Your task to perform on an android device: open app "Instagram" (install if not already installed) Image 0: 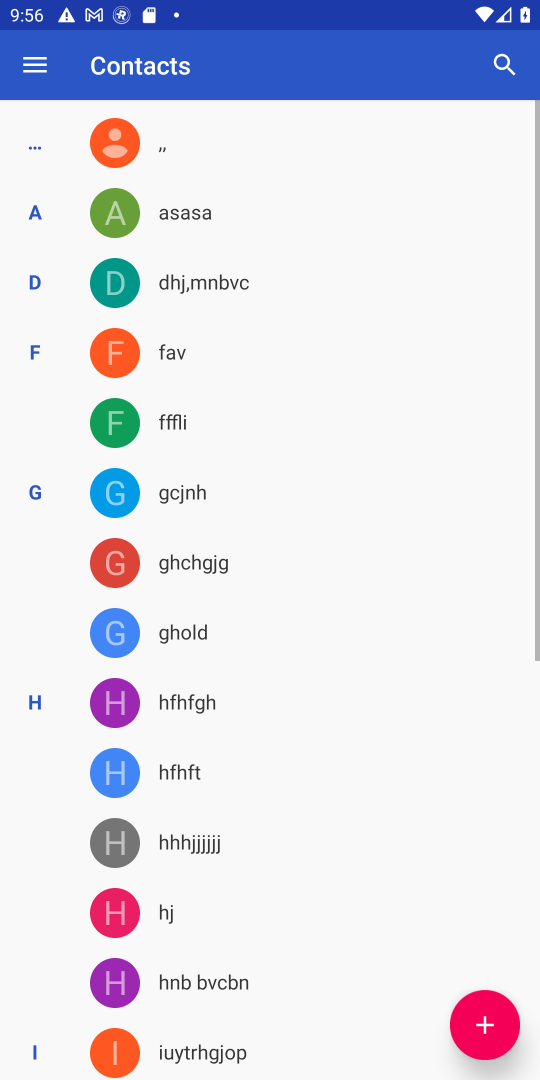
Step 0: press home button
Your task to perform on an android device: open app "Instagram" (install if not already installed) Image 1: 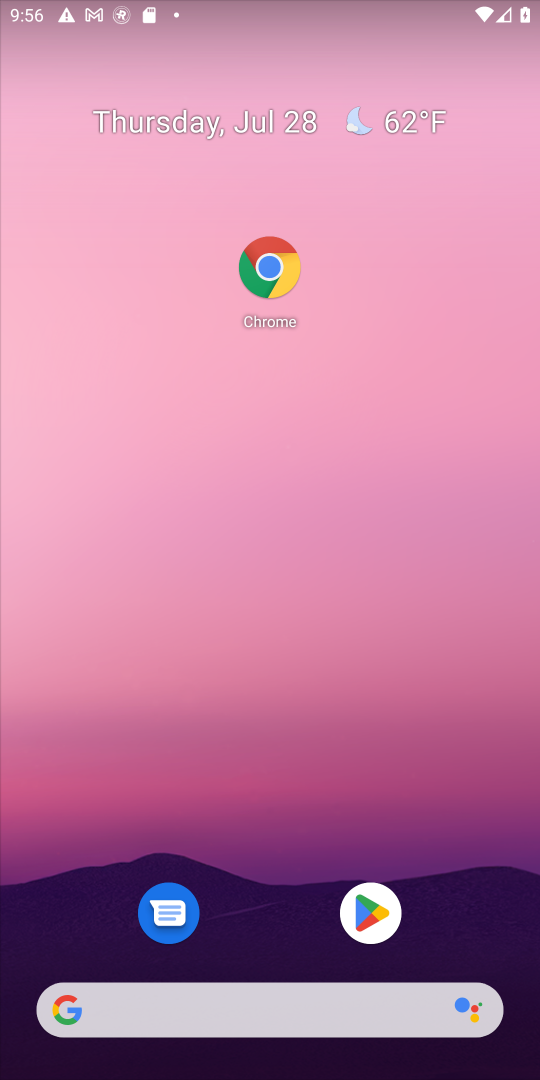
Step 1: click (379, 926)
Your task to perform on an android device: open app "Instagram" (install if not already installed) Image 2: 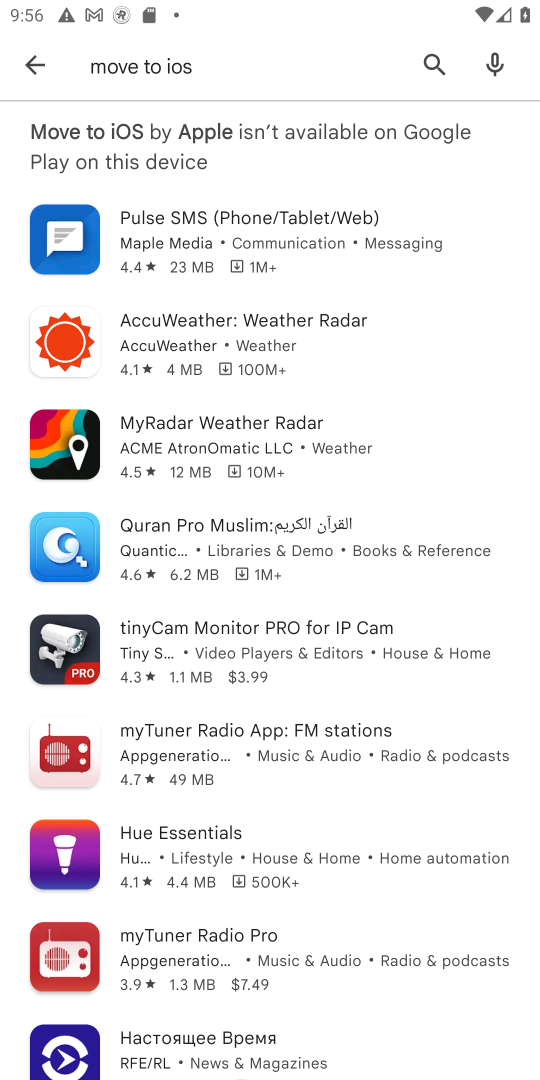
Step 2: click (422, 59)
Your task to perform on an android device: open app "Instagram" (install if not already installed) Image 3: 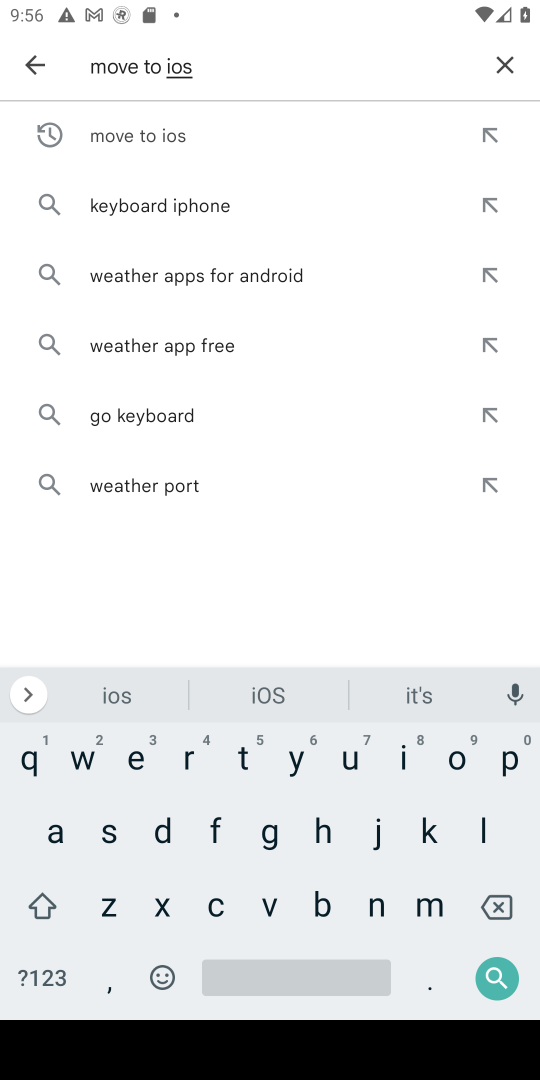
Step 3: click (502, 59)
Your task to perform on an android device: open app "Instagram" (install if not already installed) Image 4: 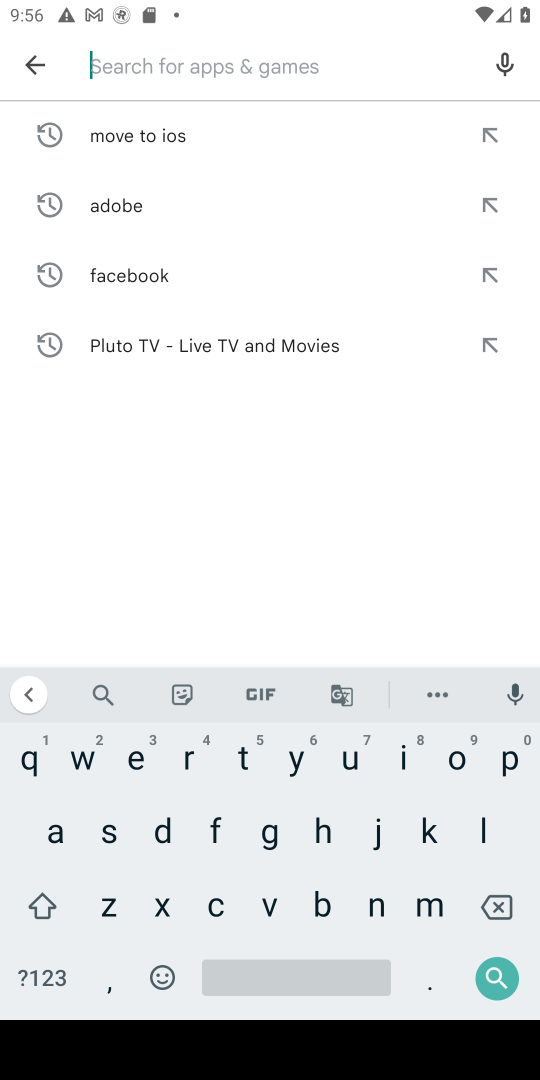
Step 4: click (410, 758)
Your task to perform on an android device: open app "Instagram" (install if not already installed) Image 5: 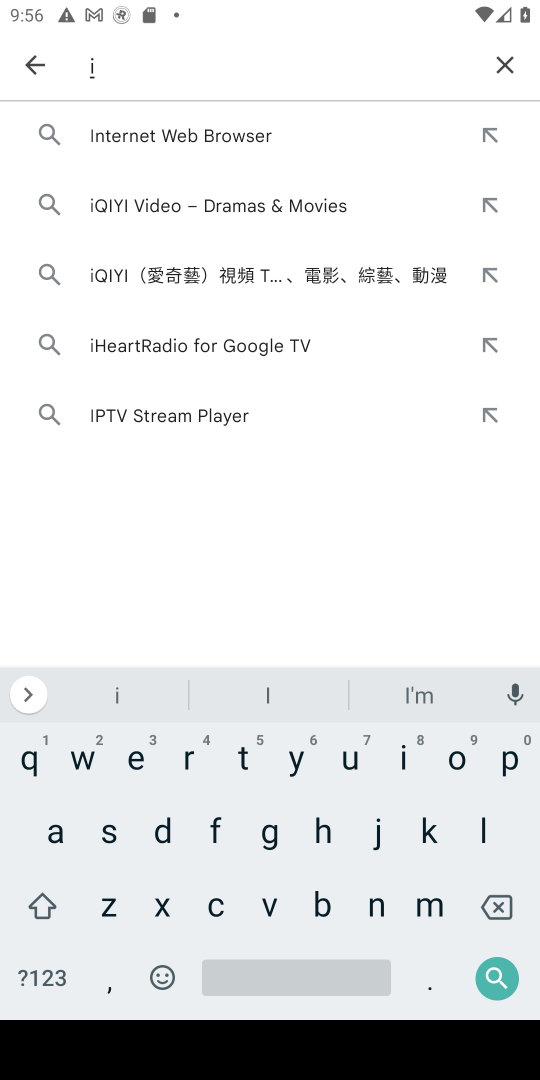
Step 5: click (375, 907)
Your task to perform on an android device: open app "Instagram" (install if not already installed) Image 6: 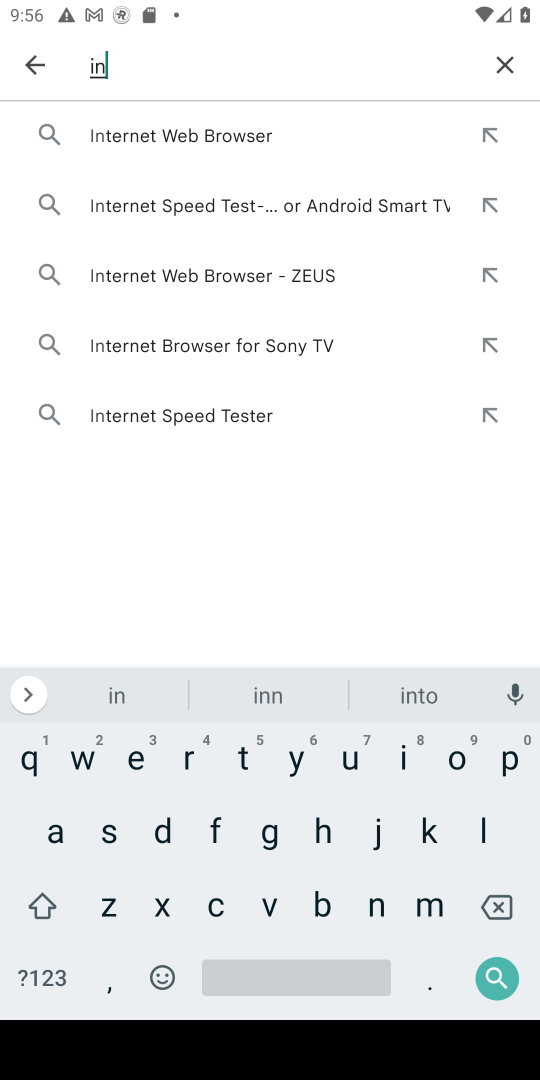
Step 6: click (103, 833)
Your task to perform on an android device: open app "Instagram" (install if not already installed) Image 7: 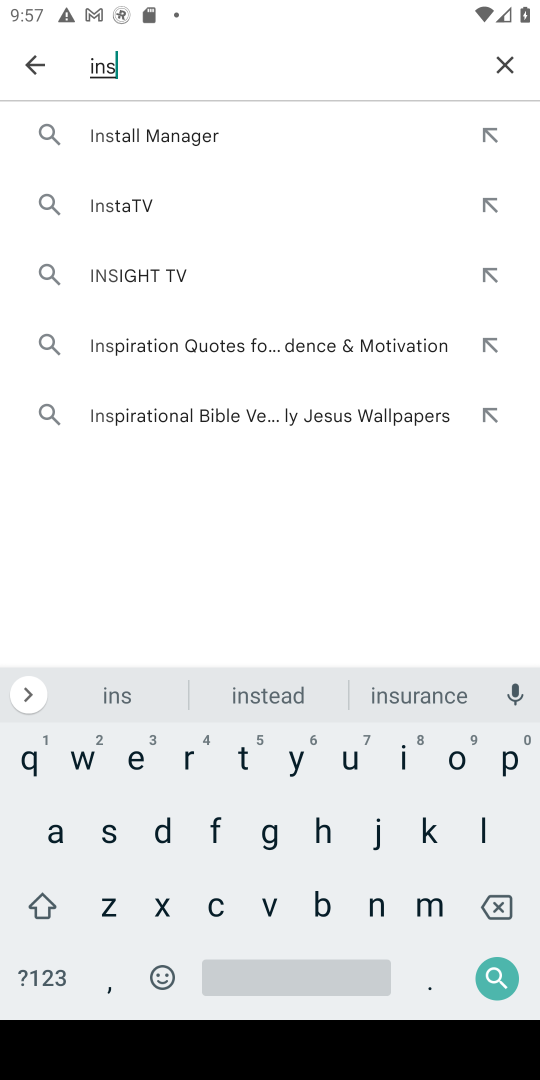
Step 7: click (267, 743)
Your task to perform on an android device: open app "Instagram" (install if not already installed) Image 8: 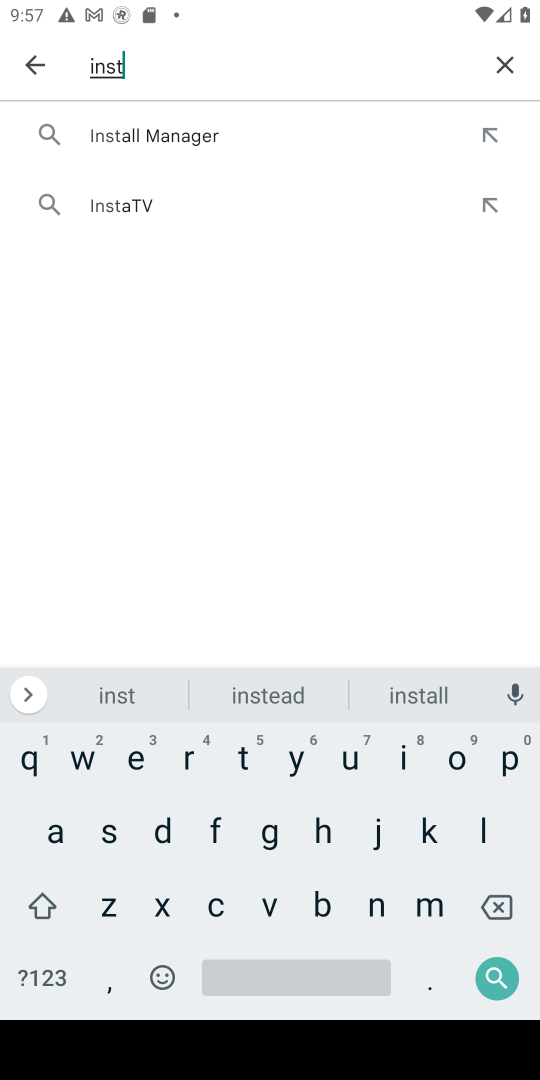
Step 8: click (51, 838)
Your task to perform on an android device: open app "Instagram" (install if not already installed) Image 9: 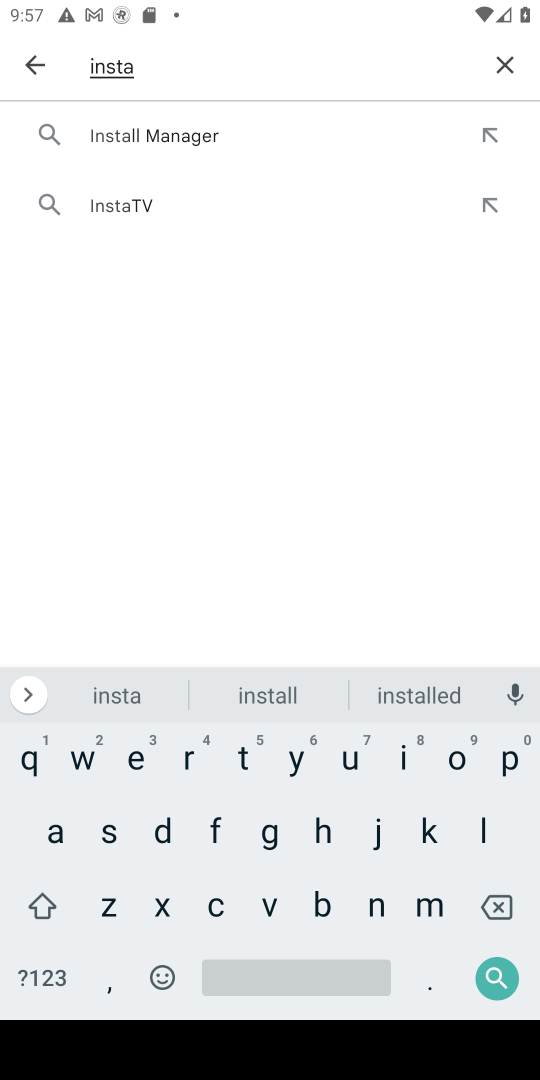
Step 9: click (258, 827)
Your task to perform on an android device: open app "Instagram" (install if not already installed) Image 10: 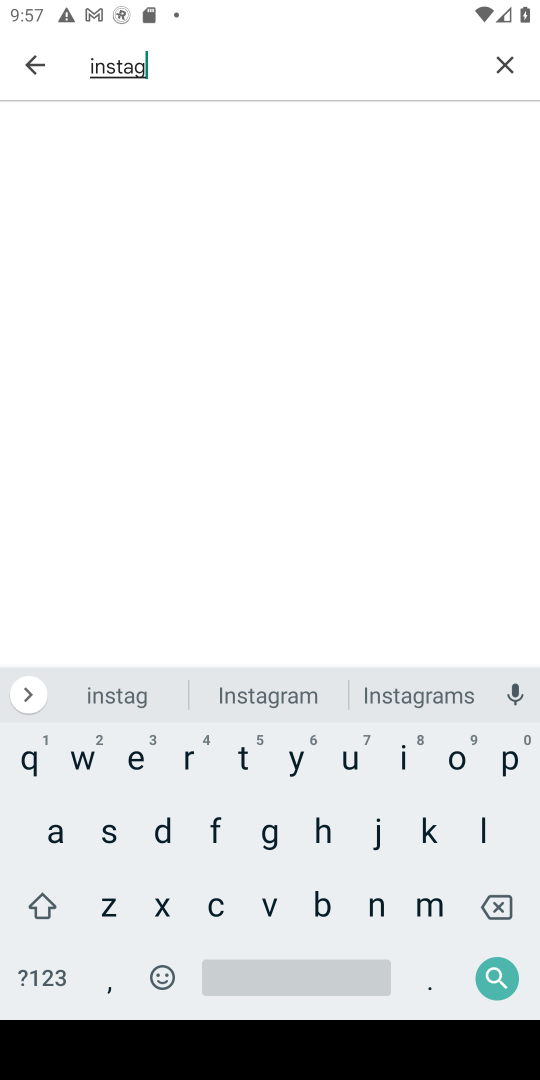
Step 10: click (264, 694)
Your task to perform on an android device: open app "Instagram" (install if not already installed) Image 11: 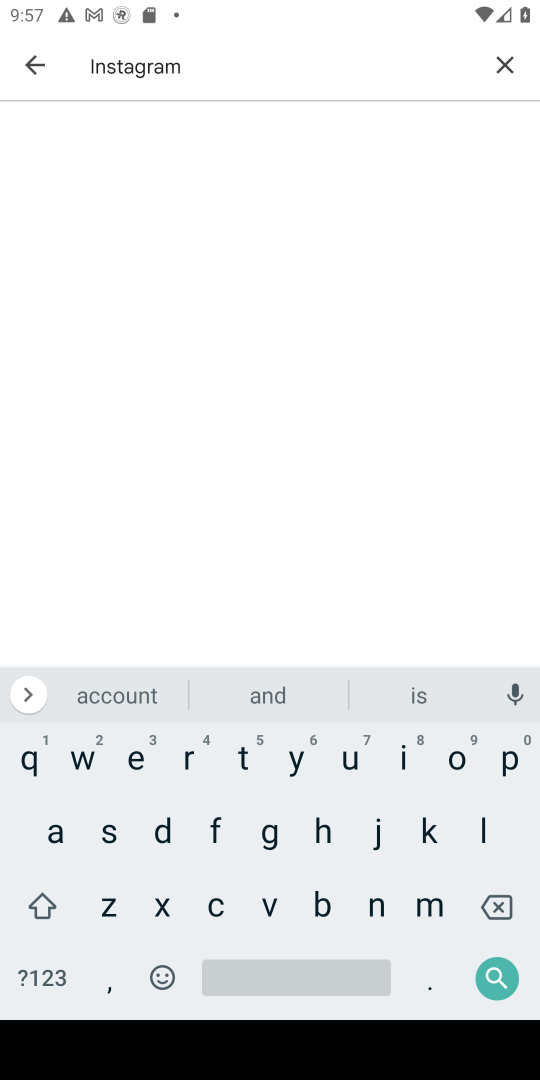
Step 11: click (497, 980)
Your task to perform on an android device: open app "Instagram" (install if not already installed) Image 12: 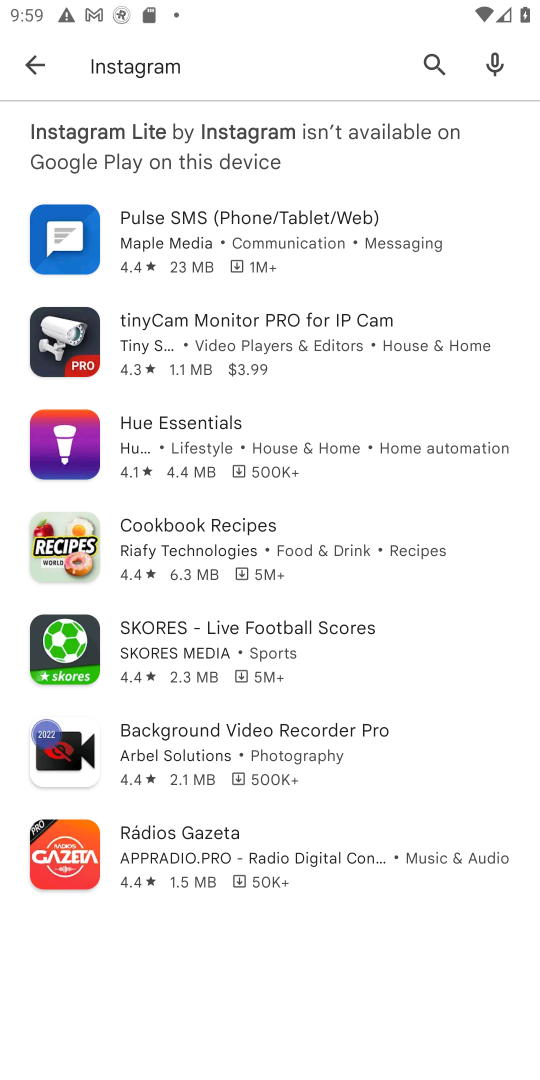
Step 12: task complete